Your task to perform on an android device: Go to Maps Image 0: 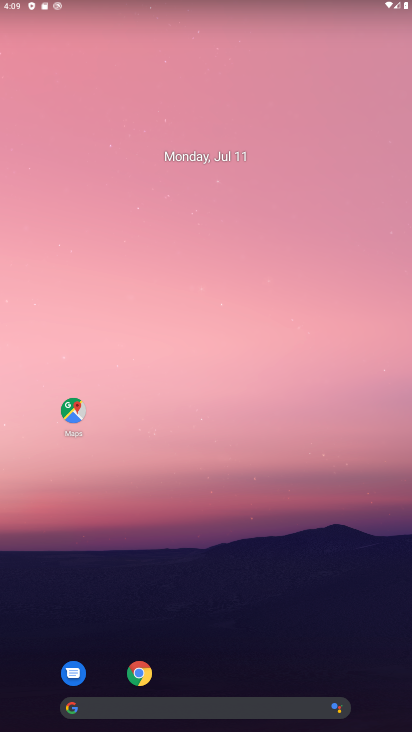
Step 0: click (68, 410)
Your task to perform on an android device: Go to Maps Image 1: 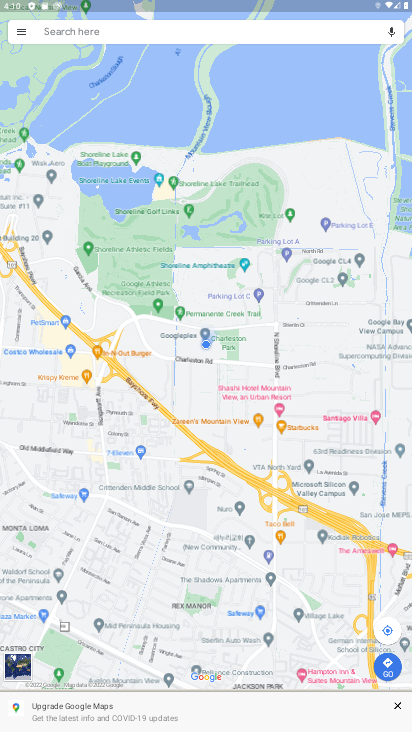
Step 1: task complete